Your task to perform on an android device: turn off translation in the chrome app Image 0: 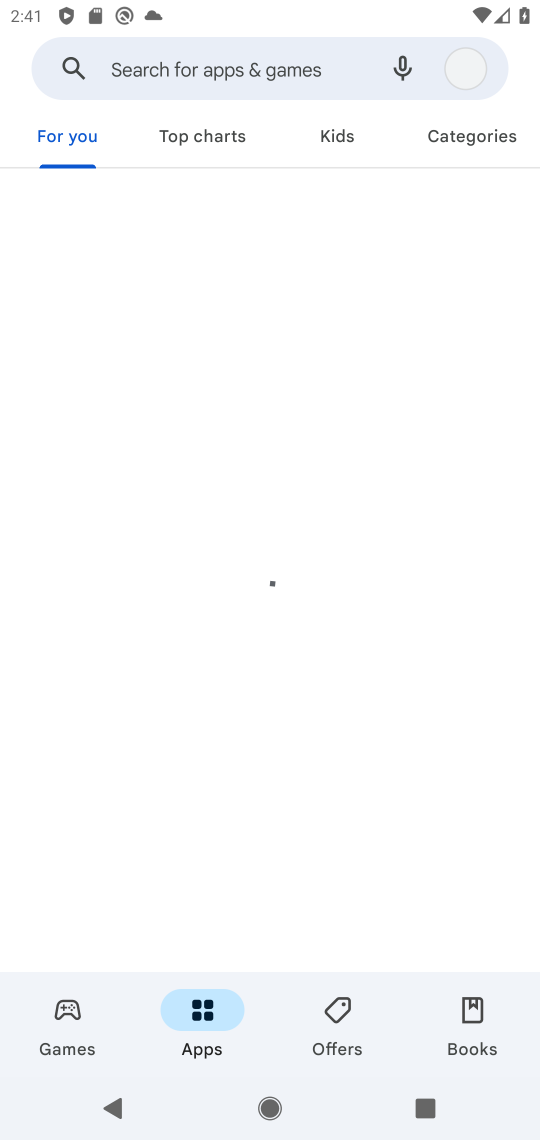
Step 0: press home button
Your task to perform on an android device: turn off translation in the chrome app Image 1: 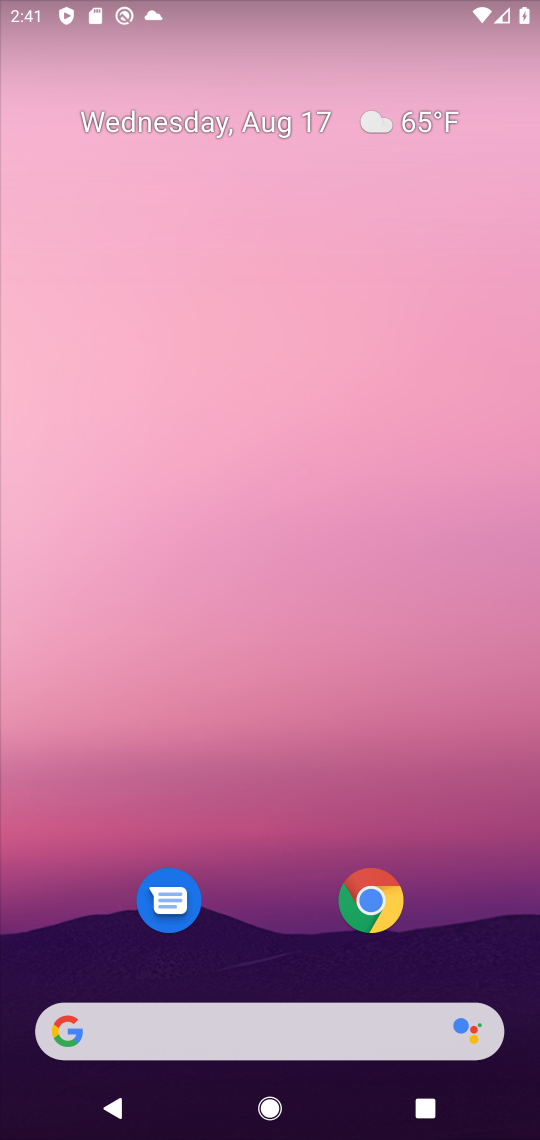
Step 1: click (380, 908)
Your task to perform on an android device: turn off translation in the chrome app Image 2: 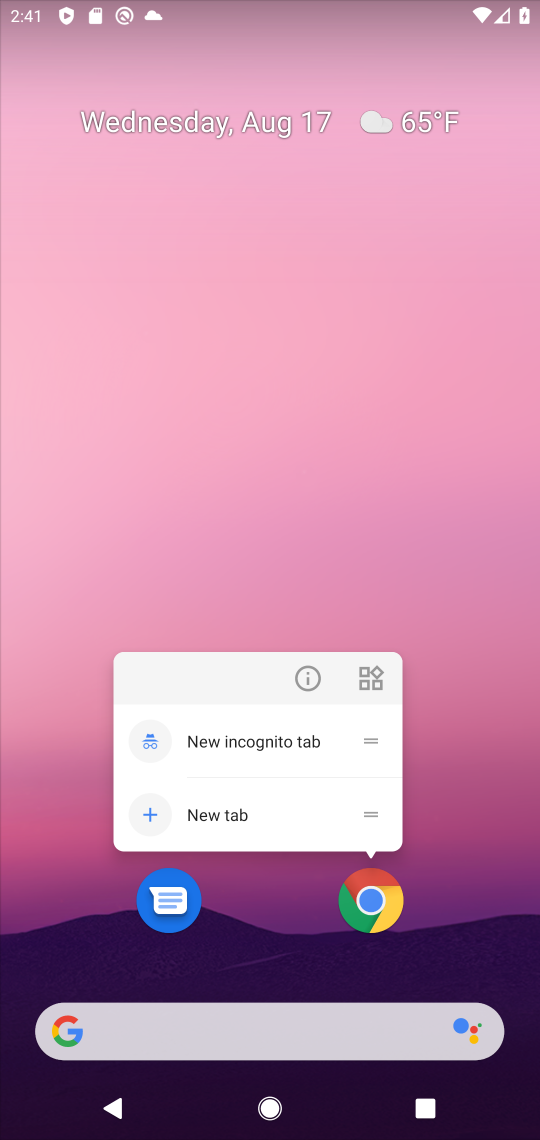
Step 2: click (380, 906)
Your task to perform on an android device: turn off translation in the chrome app Image 3: 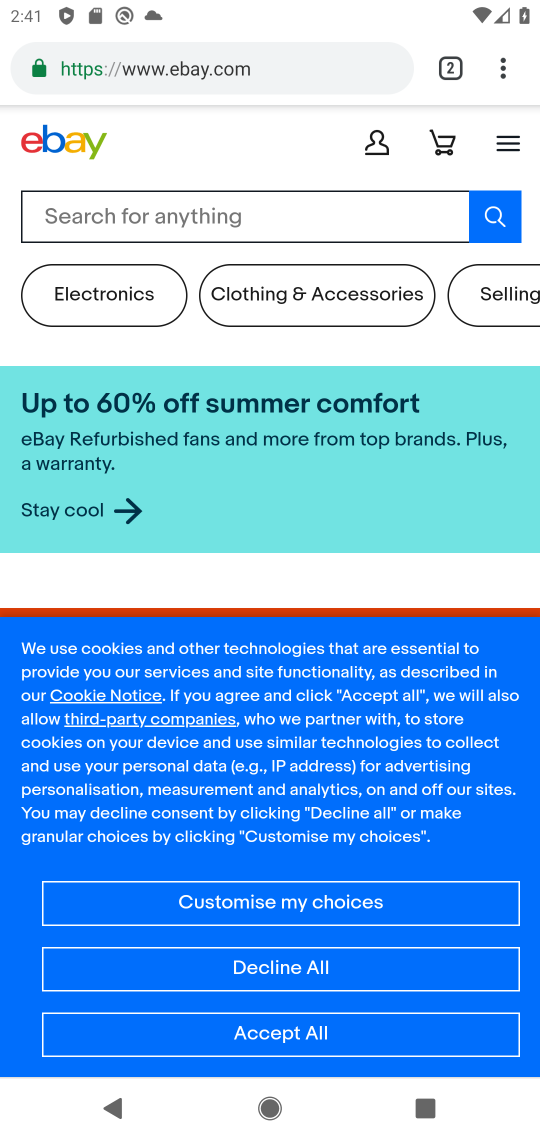
Step 3: drag from (500, 68) to (304, 884)
Your task to perform on an android device: turn off translation in the chrome app Image 4: 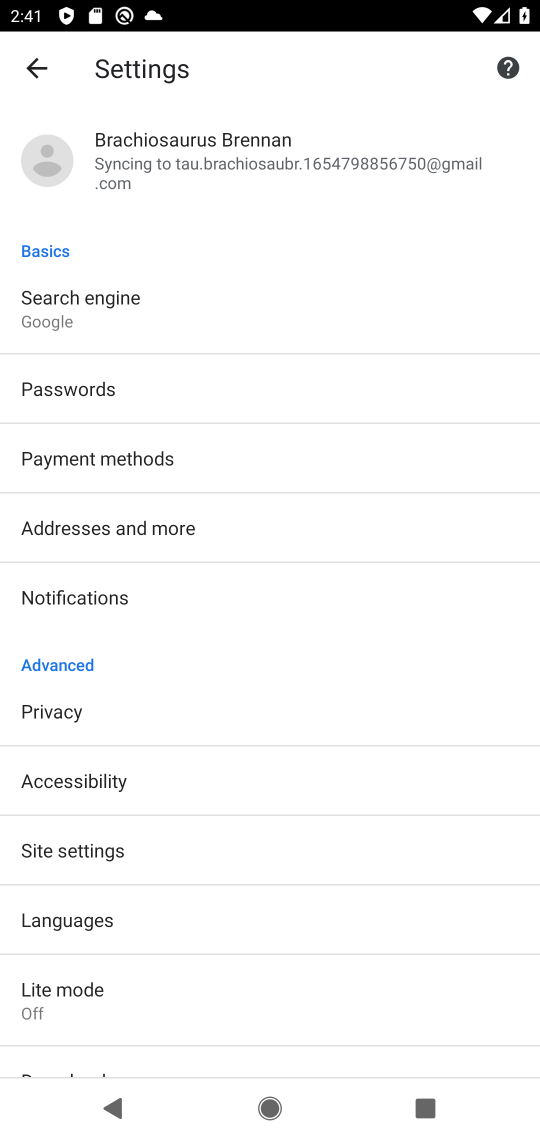
Step 4: click (72, 926)
Your task to perform on an android device: turn off translation in the chrome app Image 5: 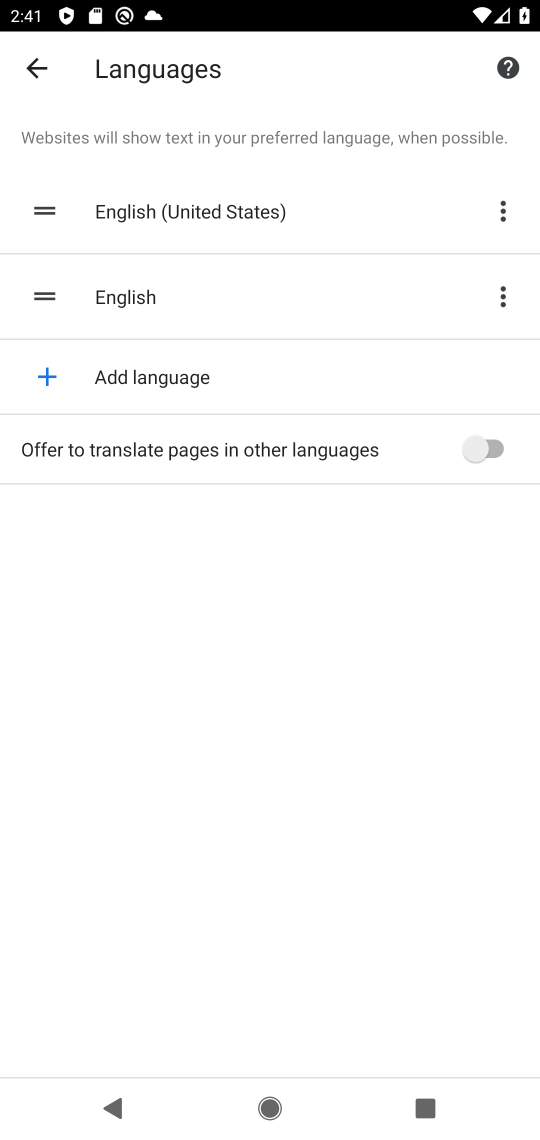
Step 5: task complete